Your task to perform on an android device: open app "PUBG MOBILE" Image 0: 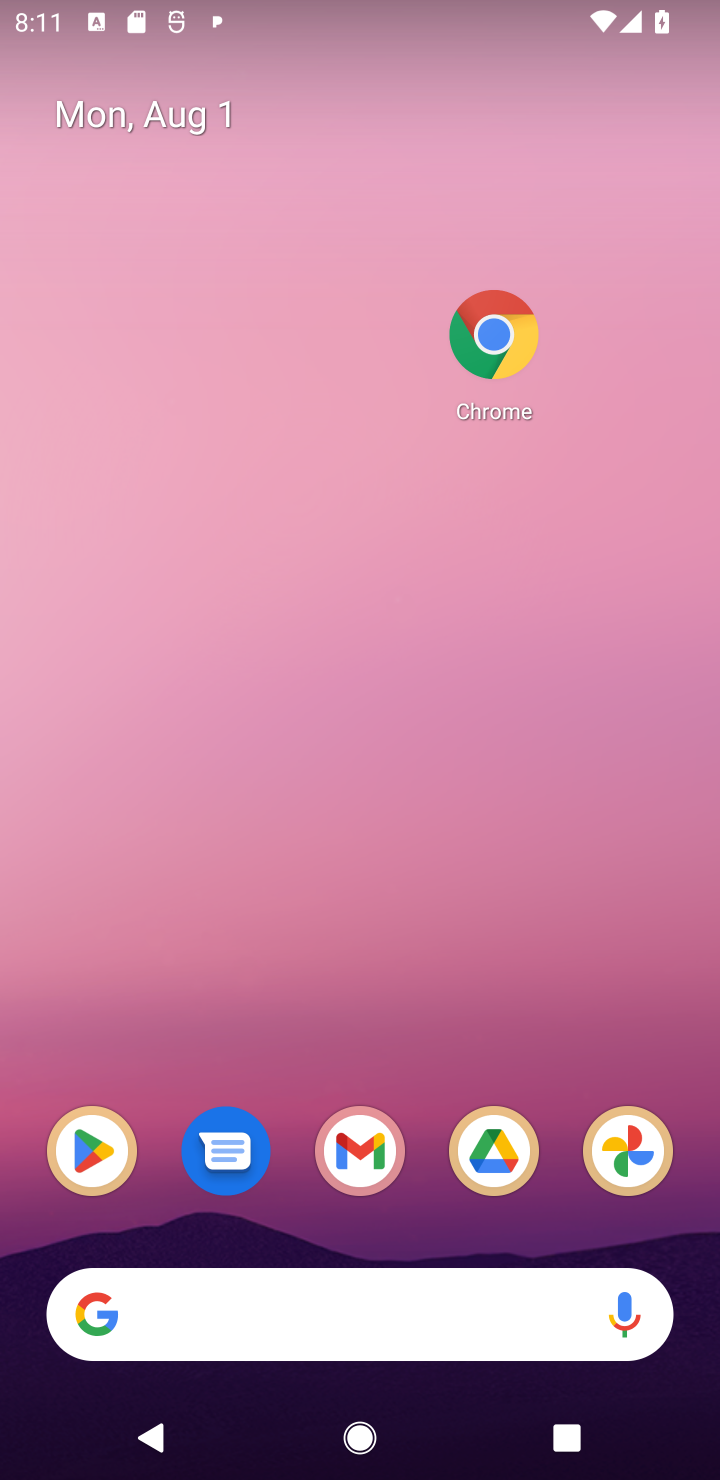
Step 0: click (95, 1162)
Your task to perform on an android device: open app "PUBG MOBILE" Image 1: 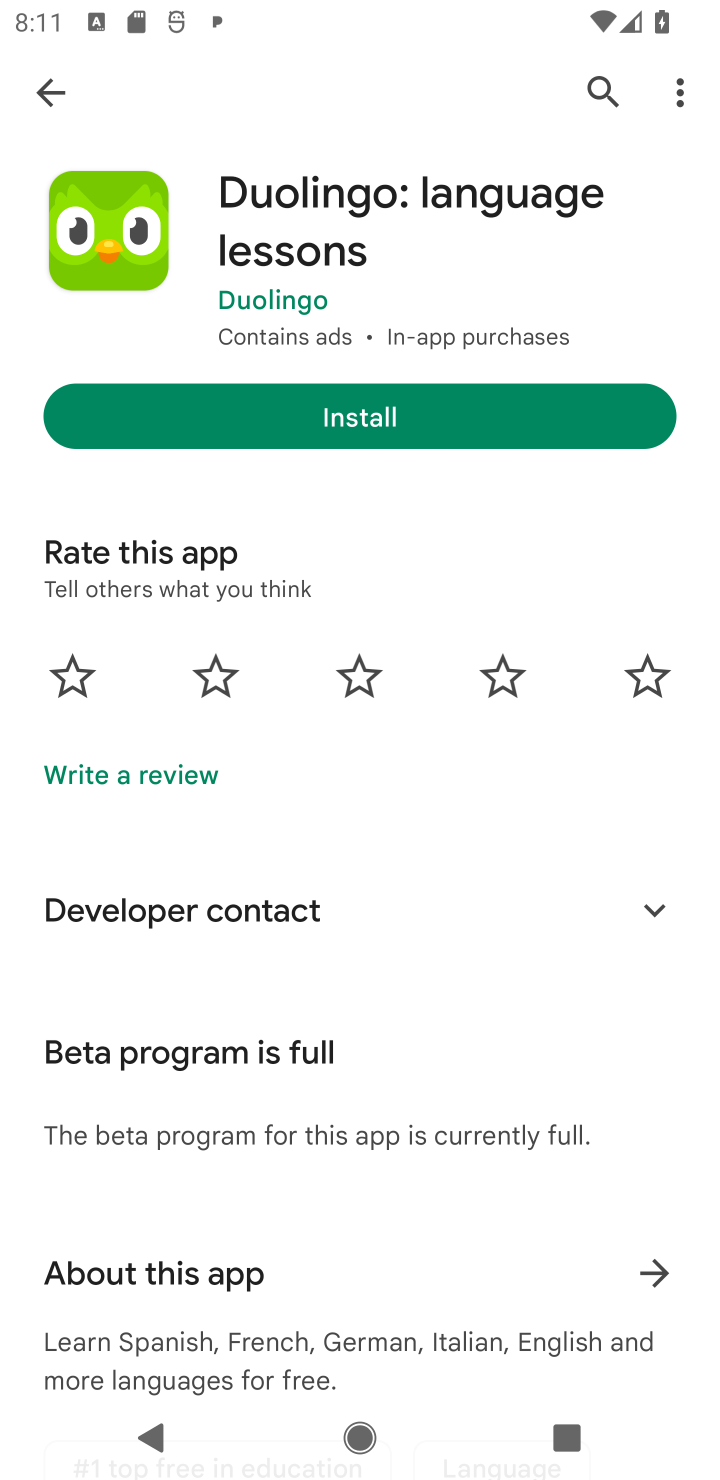
Step 1: click (596, 99)
Your task to perform on an android device: open app "PUBG MOBILE" Image 2: 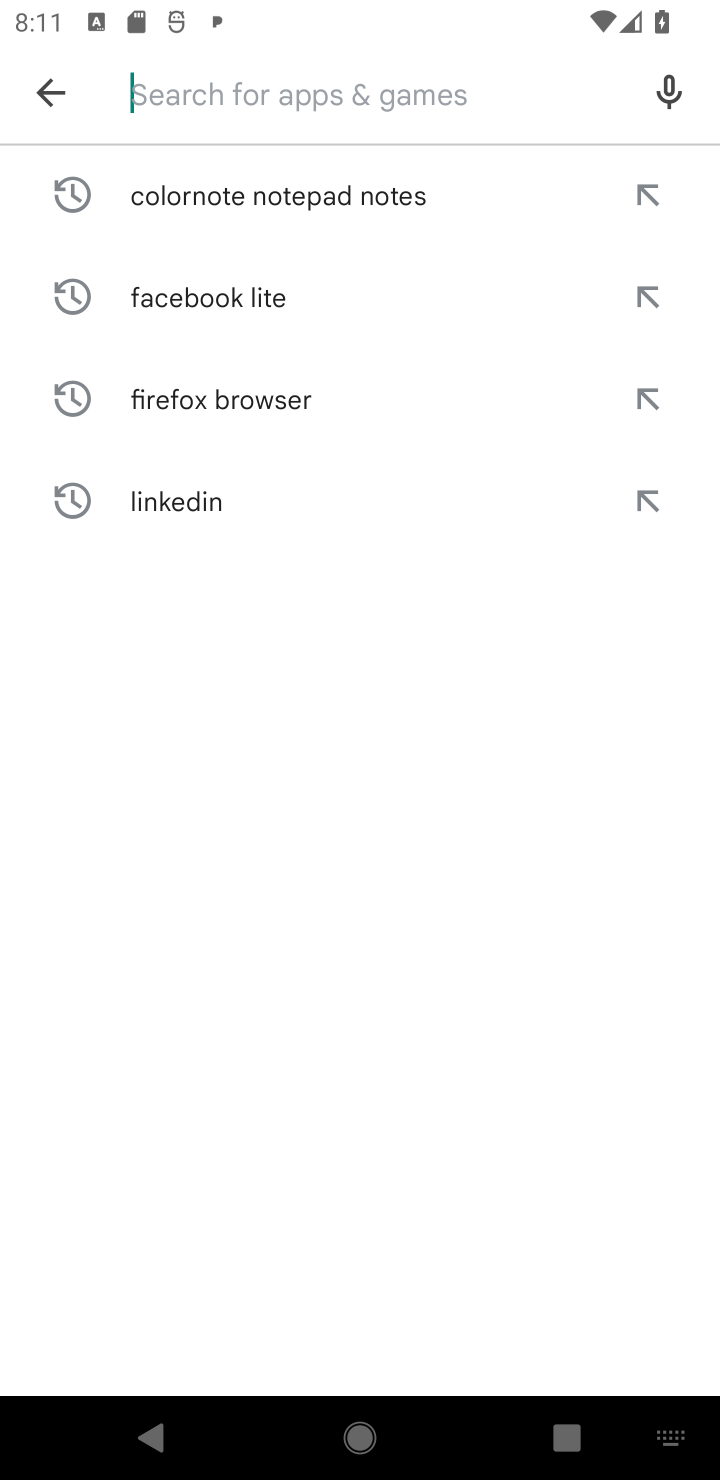
Step 2: type "PUBG MOBILE"
Your task to perform on an android device: open app "PUBG MOBILE" Image 3: 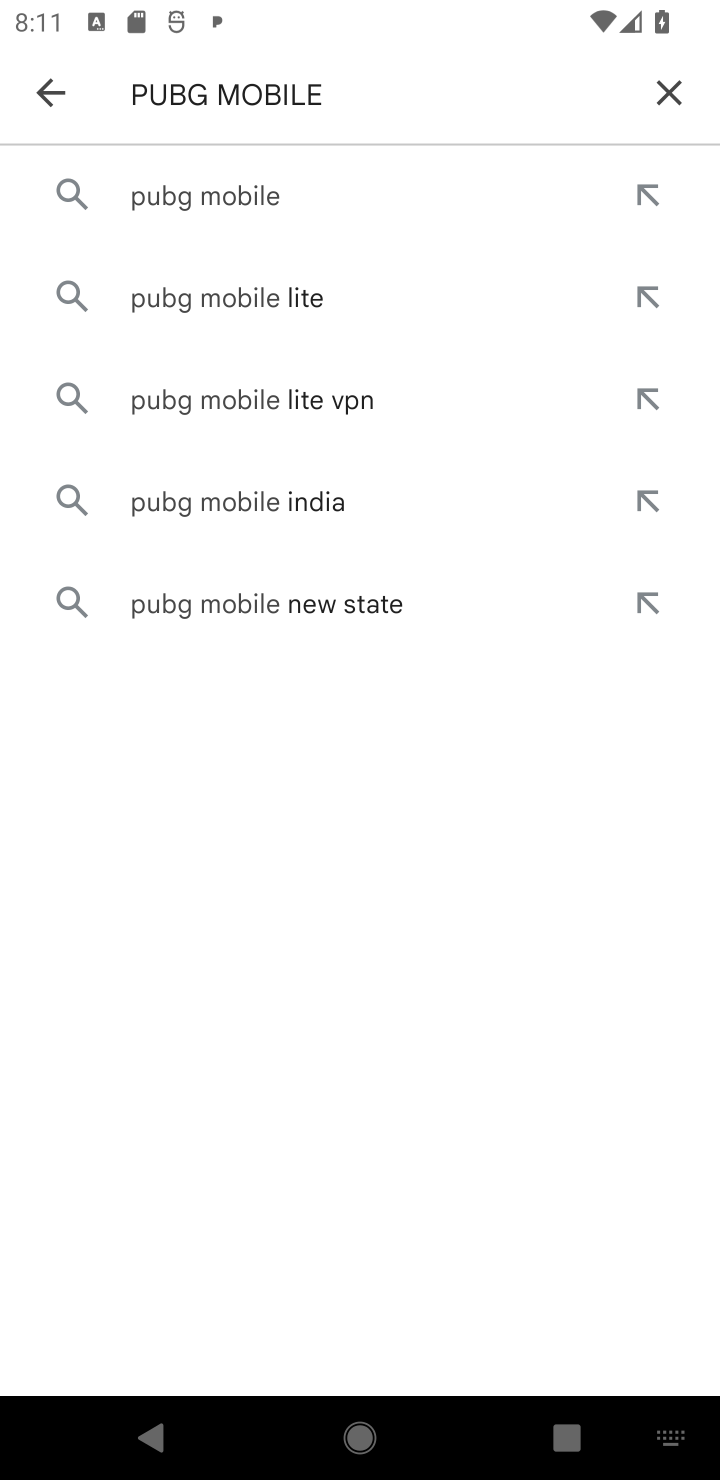
Step 3: click (234, 199)
Your task to perform on an android device: open app "PUBG MOBILE" Image 4: 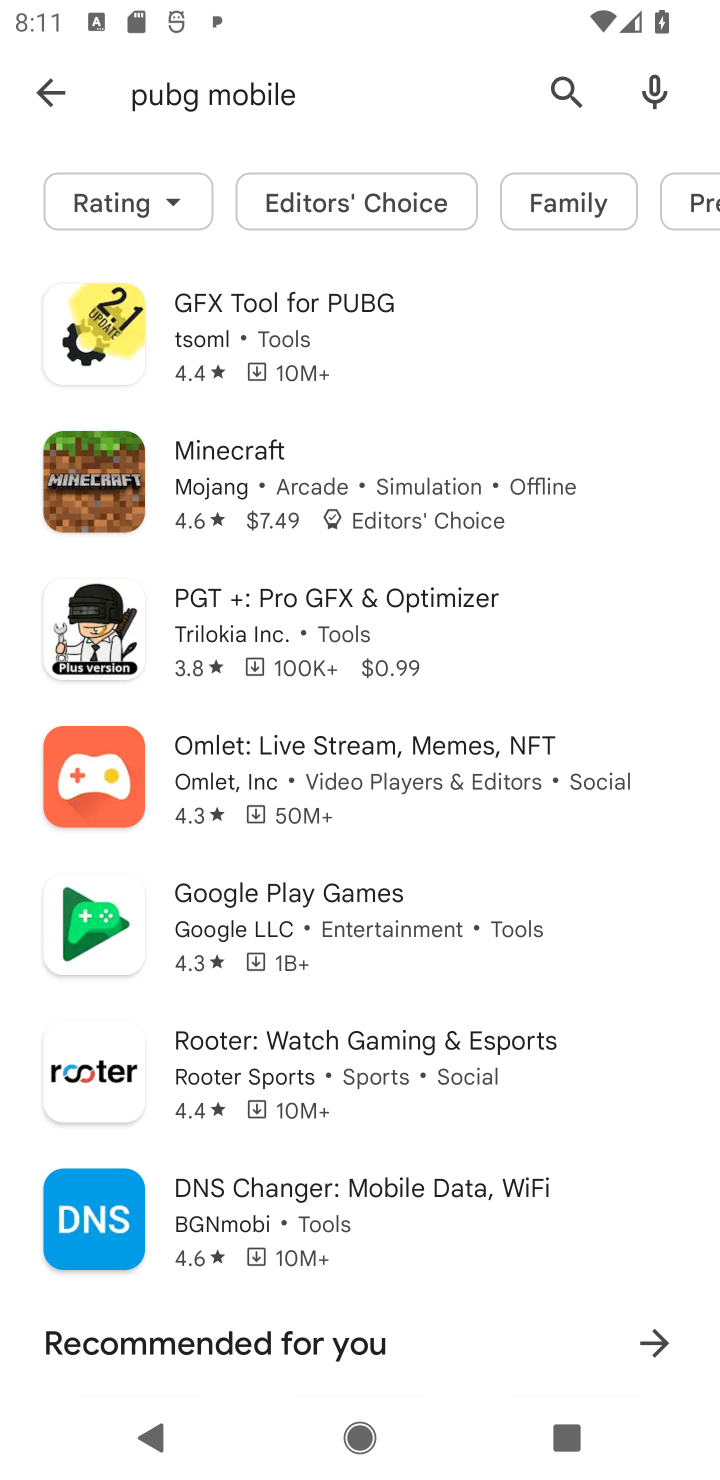
Step 4: task complete